Your task to perform on an android device: Go to settings Image 0: 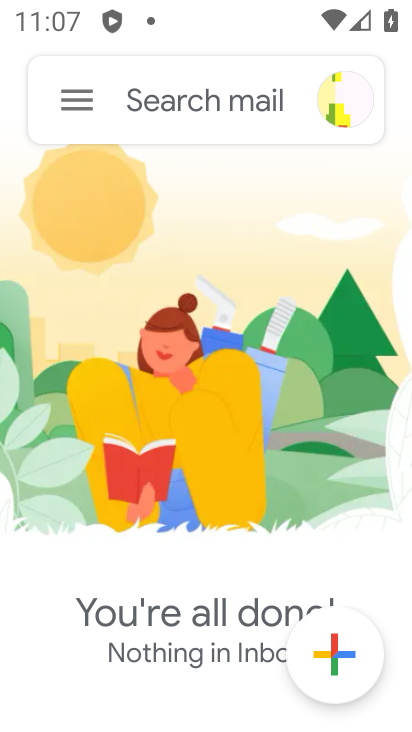
Step 0: press home button
Your task to perform on an android device: Go to settings Image 1: 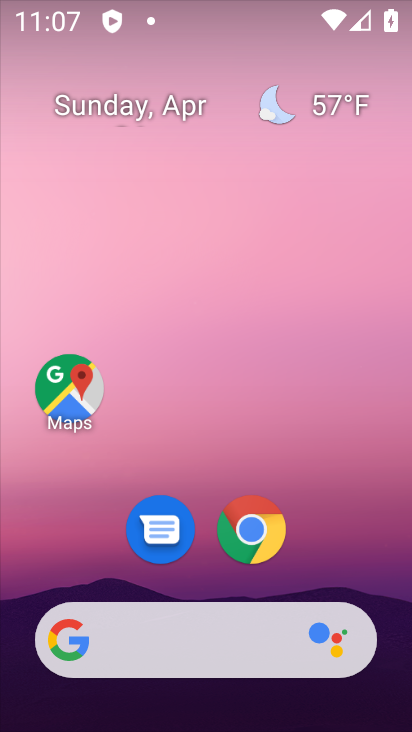
Step 1: drag from (202, 461) to (144, 30)
Your task to perform on an android device: Go to settings Image 2: 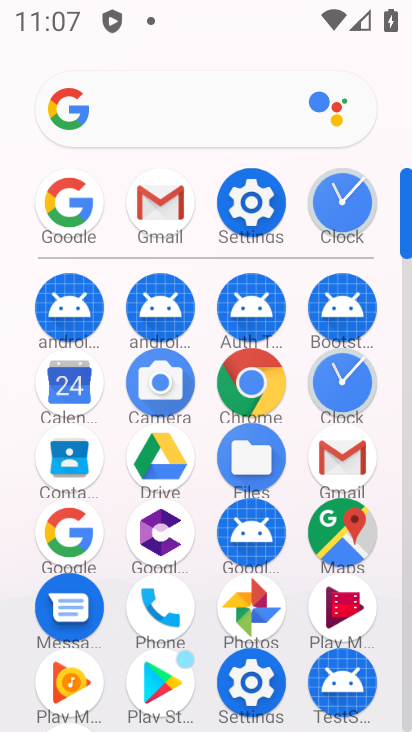
Step 2: click (261, 200)
Your task to perform on an android device: Go to settings Image 3: 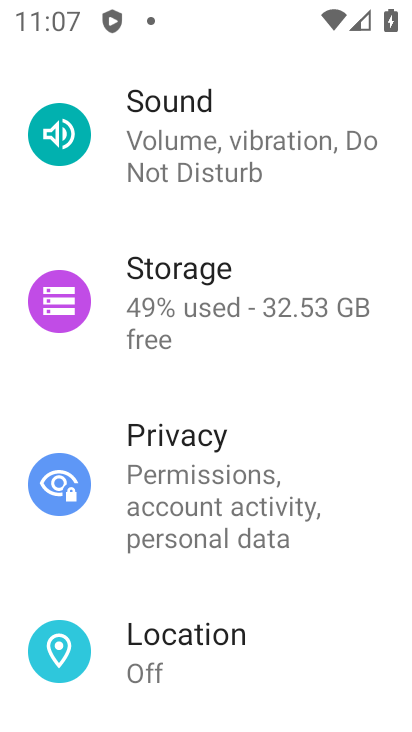
Step 3: task complete